Your task to perform on an android device: Open the stopwatch Image 0: 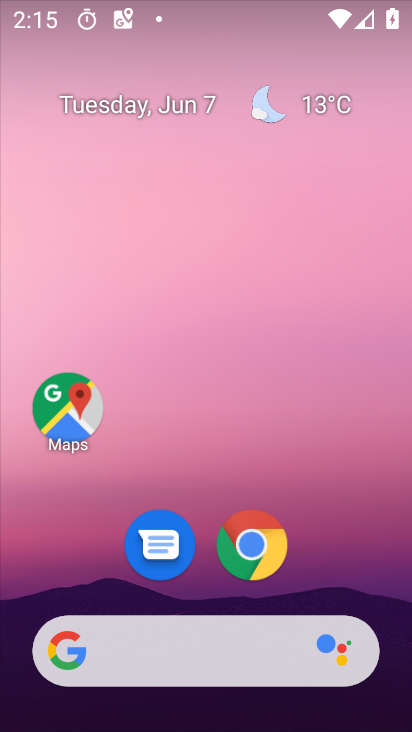
Step 0: drag from (347, 551) to (196, 30)
Your task to perform on an android device: Open the stopwatch Image 1: 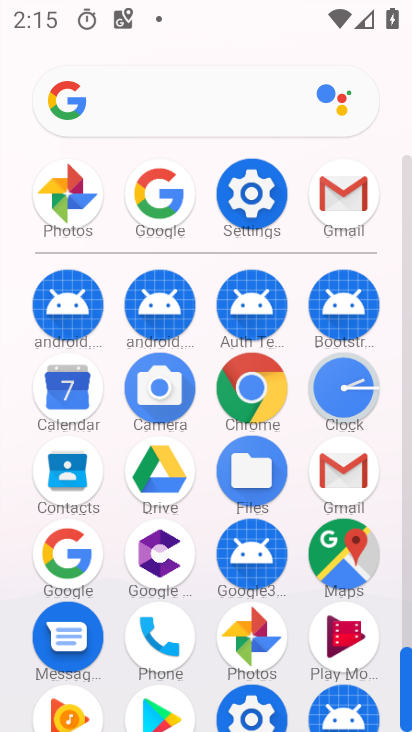
Step 1: click (353, 408)
Your task to perform on an android device: Open the stopwatch Image 2: 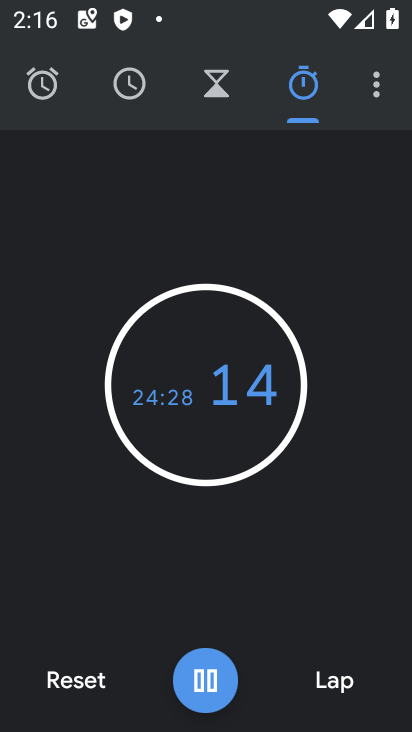
Step 2: click (304, 73)
Your task to perform on an android device: Open the stopwatch Image 3: 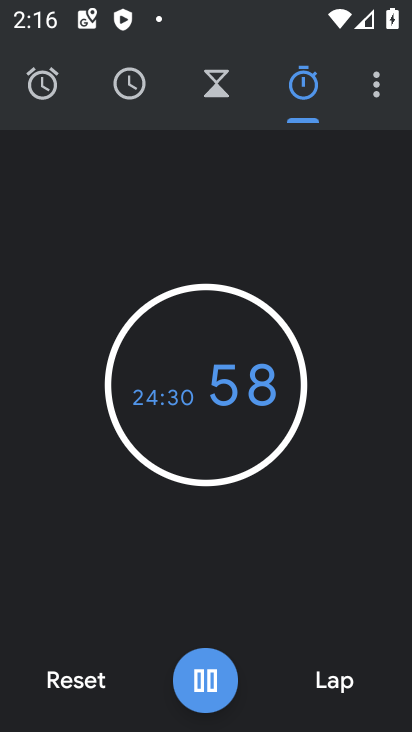
Step 3: task complete